Your task to perform on an android device: Open Youtube and go to the subscriptions tab Image 0: 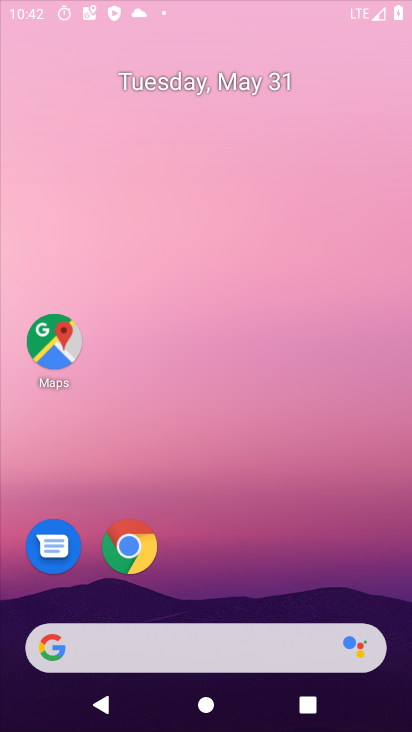
Step 0: drag from (293, 413) to (329, 146)
Your task to perform on an android device: Open Youtube and go to the subscriptions tab Image 1: 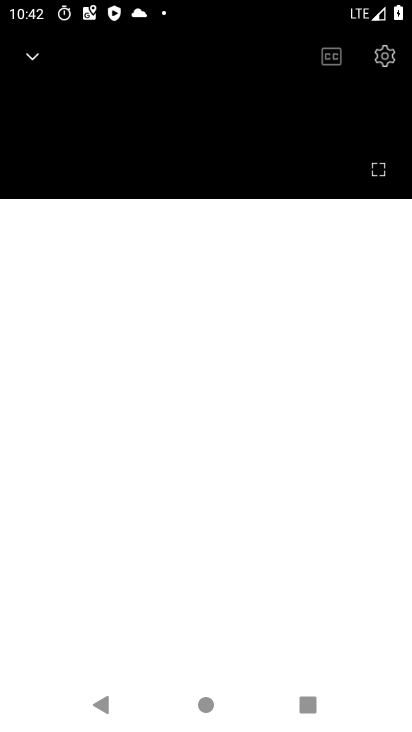
Step 1: drag from (349, 48) to (409, 204)
Your task to perform on an android device: Open Youtube and go to the subscriptions tab Image 2: 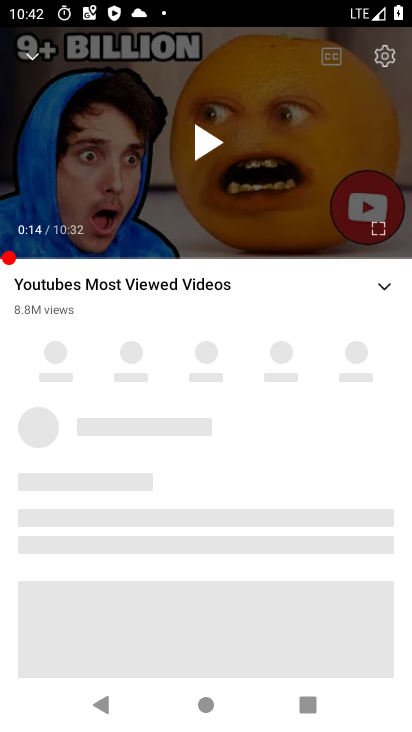
Step 2: press home button
Your task to perform on an android device: Open Youtube and go to the subscriptions tab Image 3: 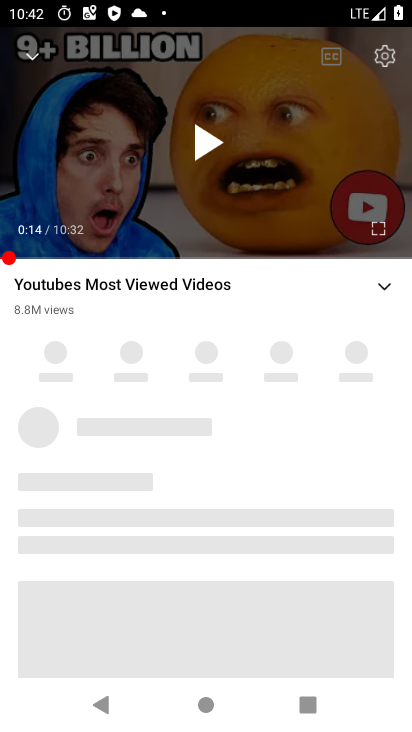
Step 3: drag from (409, 204) to (410, 566)
Your task to perform on an android device: Open Youtube and go to the subscriptions tab Image 4: 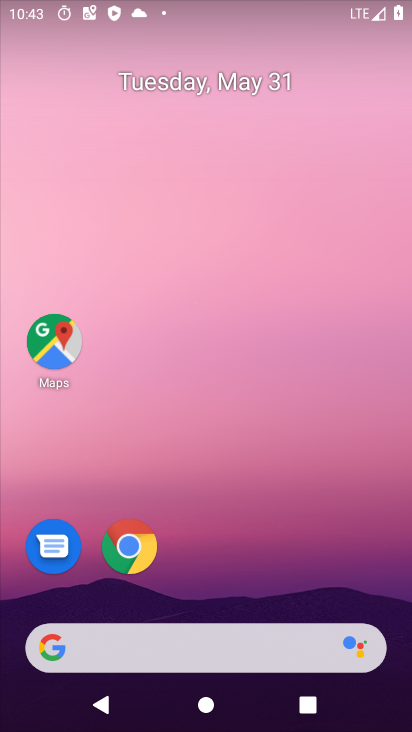
Step 4: drag from (275, 638) to (286, 181)
Your task to perform on an android device: Open Youtube and go to the subscriptions tab Image 5: 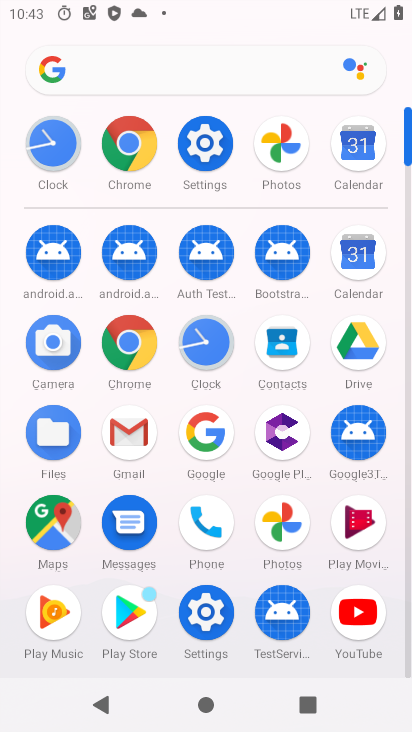
Step 5: click (363, 624)
Your task to perform on an android device: Open Youtube and go to the subscriptions tab Image 6: 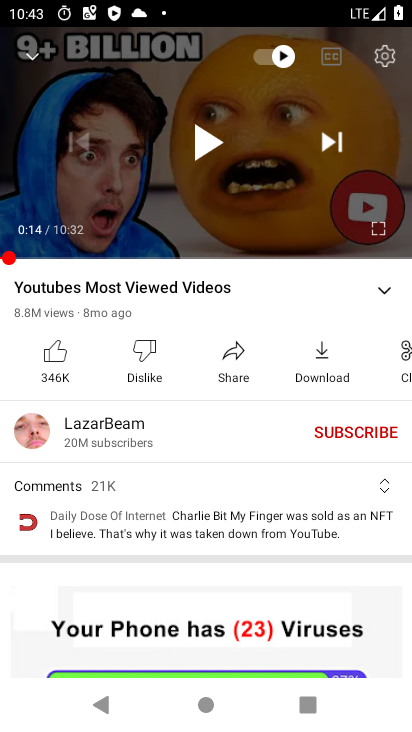
Step 6: press back button
Your task to perform on an android device: Open Youtube and go to the subscriptions tab Image 7: 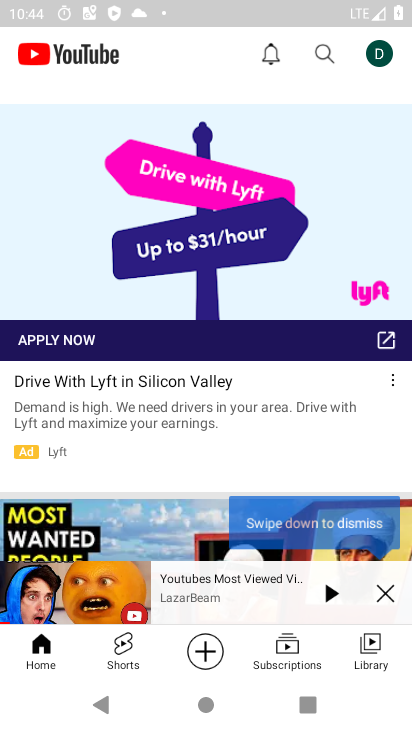
Step 7: drag from (307, 498) to (339, 105)
Your task to perform on an android device: Open Youtube and go to the subscriptions tab Image 8: 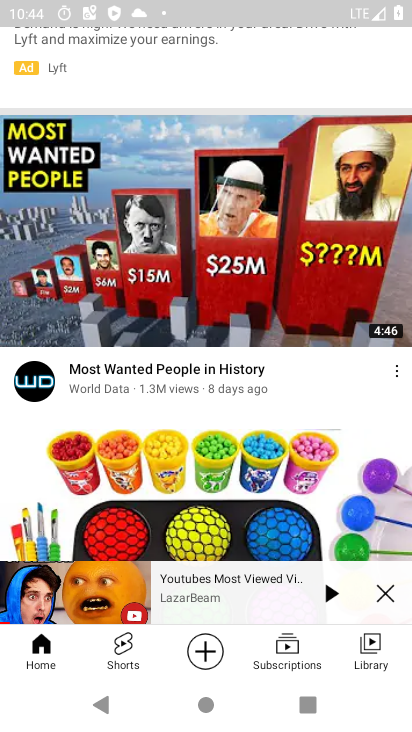
Step 8: click (286, 645)
Your task to perform on an android device: Open Youtube and go to the subscriptions tab Image 9: 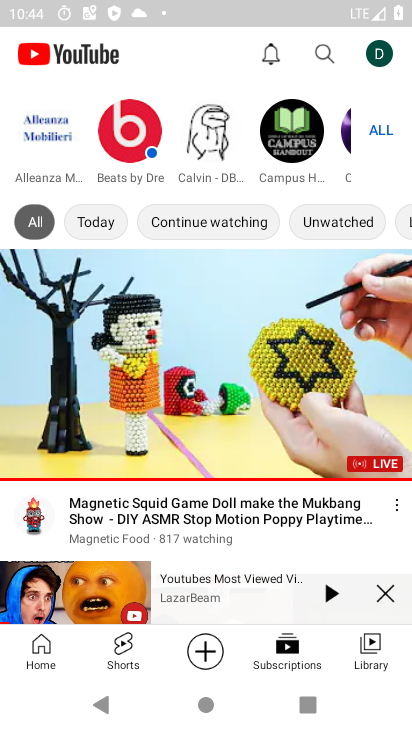
Step 9: task complete